Your task to perform on an android device: Check the news Image 0: 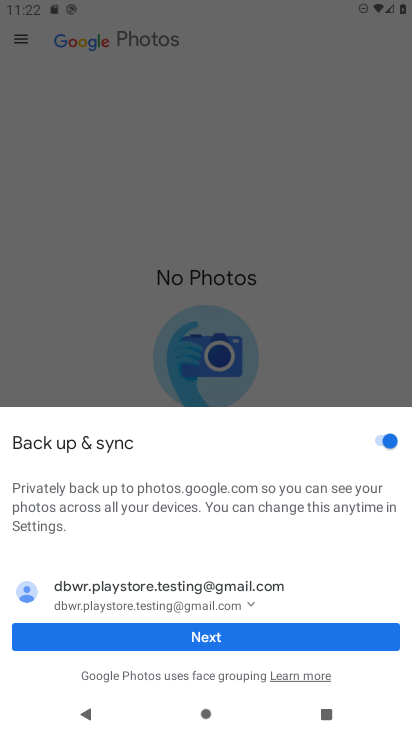
Step 0: press home button
Your task to perform on an android device: Check the news Image 1: 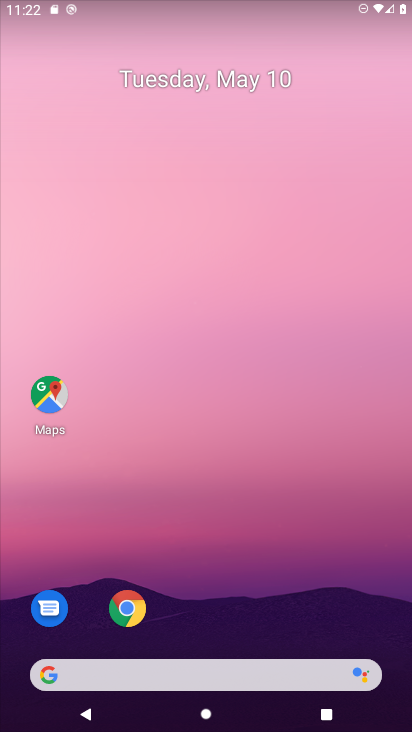
Step 1: click (291, 675)
Your task to perform on an android device: Check the news Image 2: 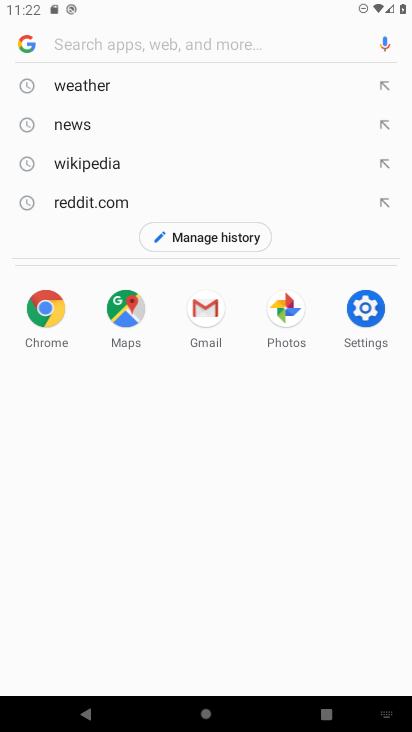
Step 2: click (70, 115)
Your task to perform on an android device: Check the news Image 3: 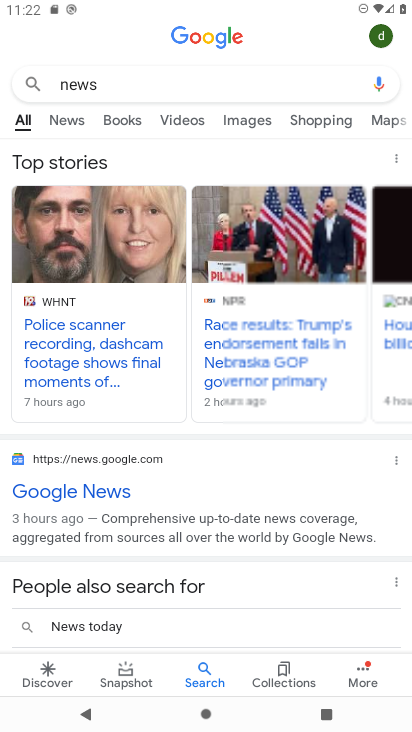
Step 3: click (70, 115)
Your task to perform on an android device: Check the news Image 4: 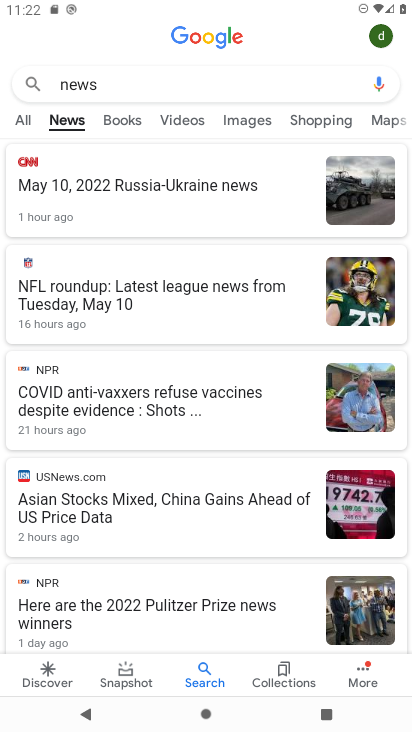
Step 4: task complete